Your task to perform on an android device: Open display settings Image 0: 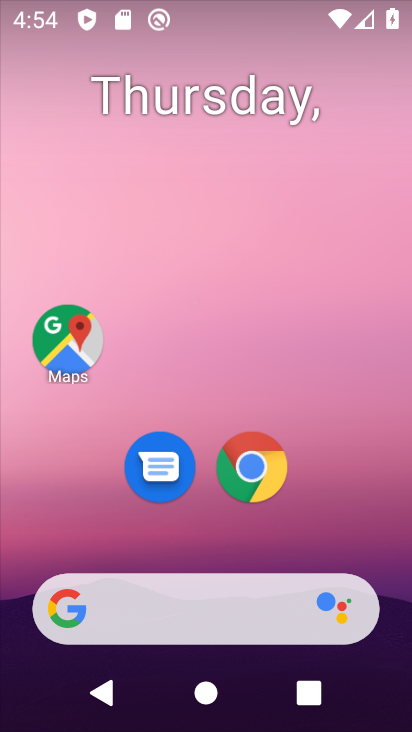
Step 0: drag from (368, 552) to (272, 75)
Your task to perform on an android device: Open display settings Image 1: 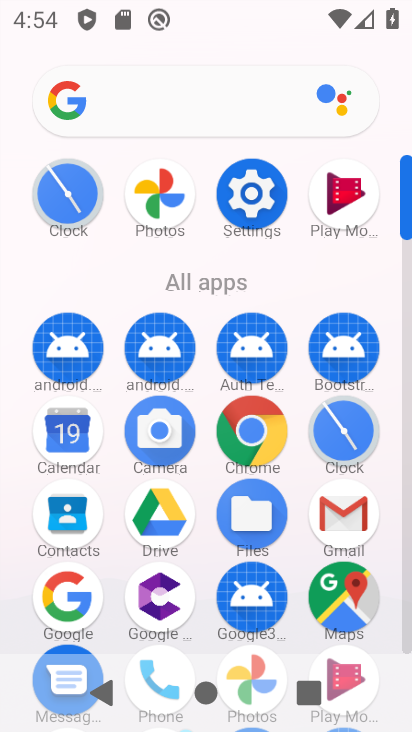
Step 1: click (257, 164)
Your task to perform on an android device: Open display settings Image 2: 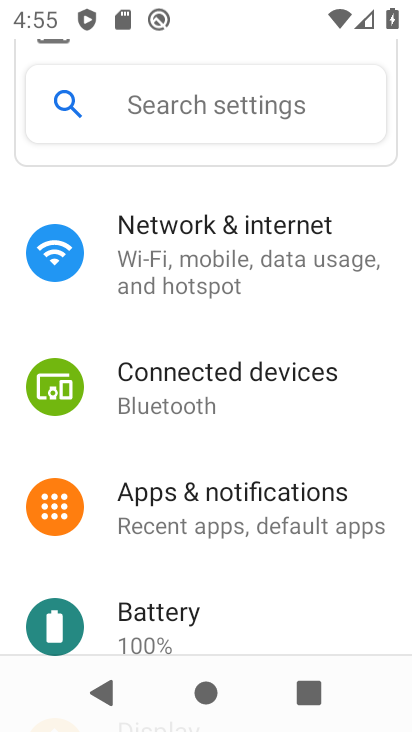
Step 2: drag from (304, 576) to (286, 166)
Your task to perform on an android device: Open display settings Image 3: 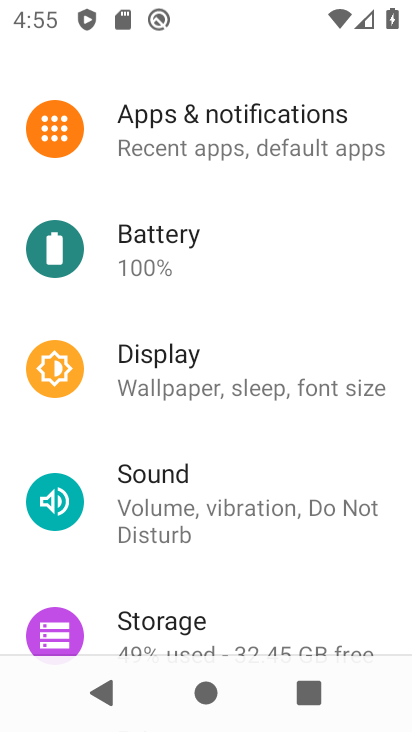
Step 3: click (282, 394)
Your task to perform on an android device: Open display settings Image 4: 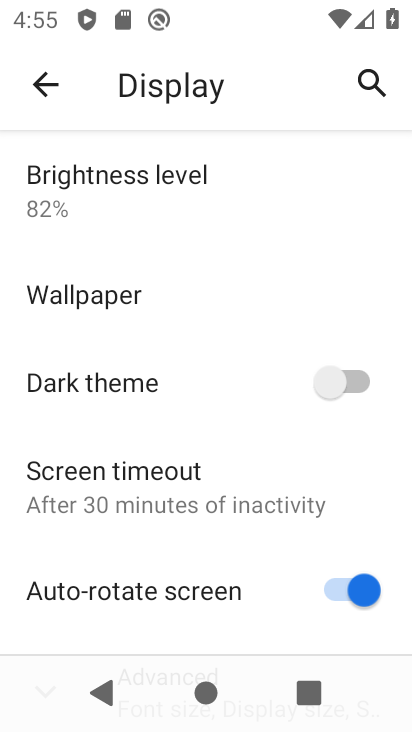
Step 4: task complete